Your task to perform on an android device: Go to wifi settings Image 0: 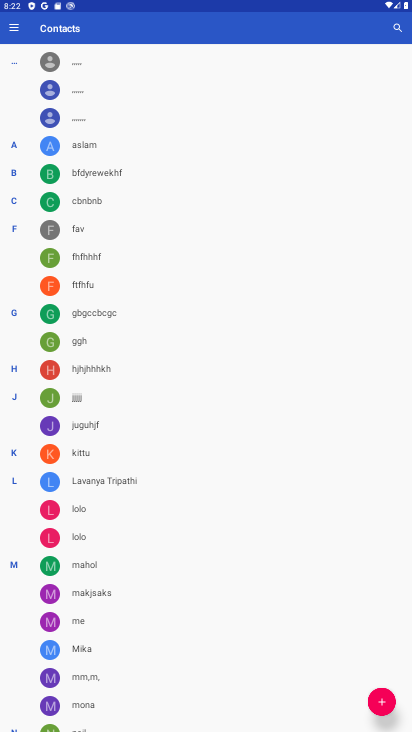
Step 0: press home button
Your task to perform on an android device: Go to wifi settings Image 1: 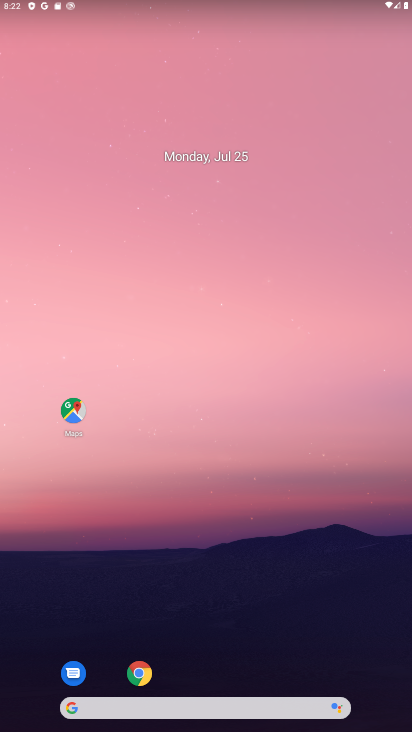
Step 1: drag from (247, 666) to (189, 19)
Your task to perform on an android device: Go to wifi settings Image 2: 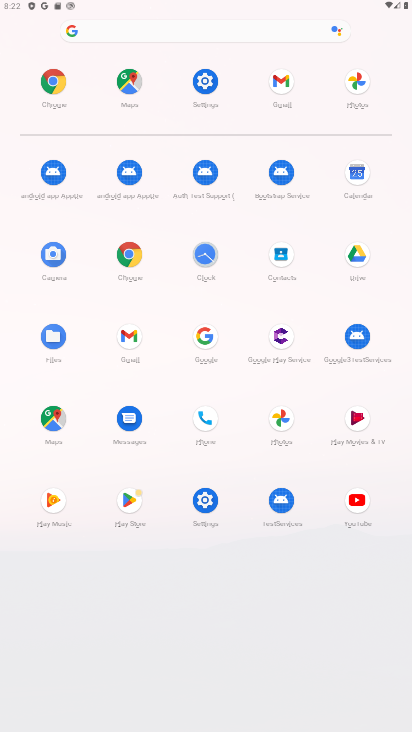
Step 2: click (203, 120)
Your task to perform on an android device: Go to wifi settings Image 3: 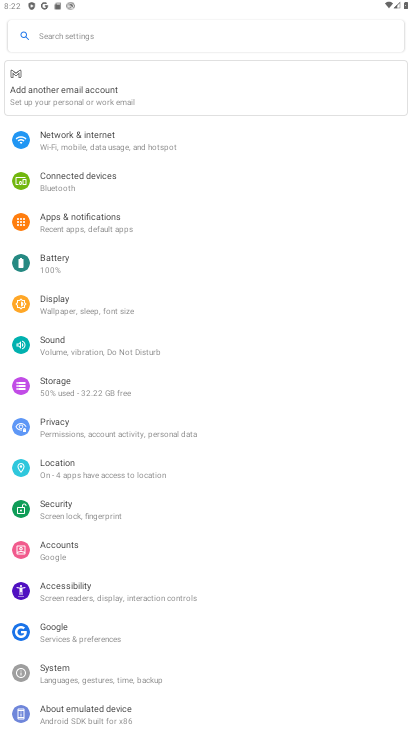
Step 3: click (69, 148)
Your task to perform on an android device: Go to wifi settings Image 4: 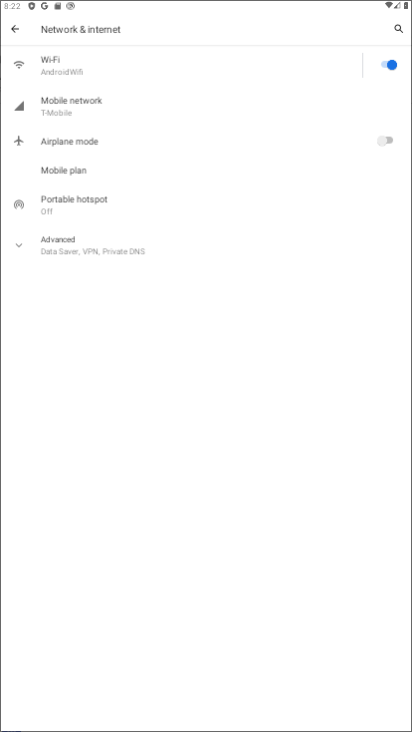
Step 4: task complete